Your task to perform on an android device: Open eBay Image 0: 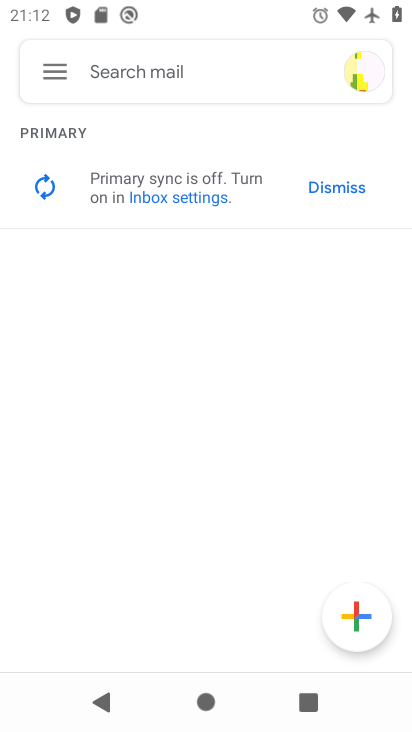
Step 0: press home button
Your task to perform on an android device: Open eBay Image 1: 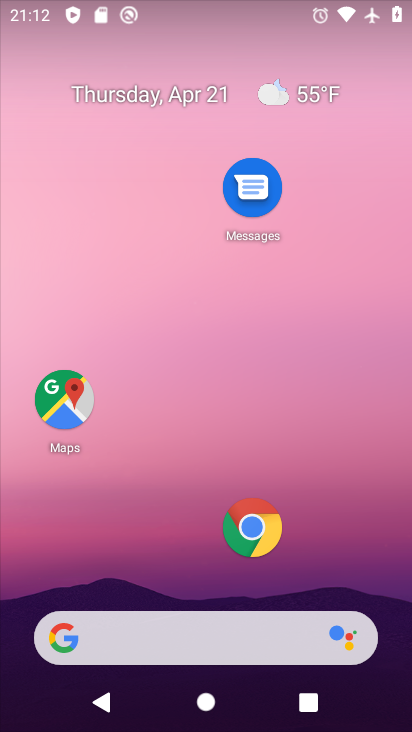
Step 1: drag from (169, 645) to (282, 58)
Your task to perform on an android device: Open eBay Image 2: 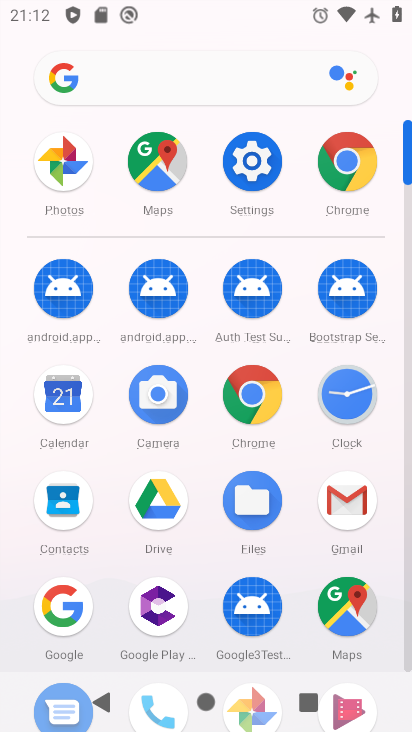
Step 2: click (344, 173)
Your task to perform on an android device: Open eBay Image 3: 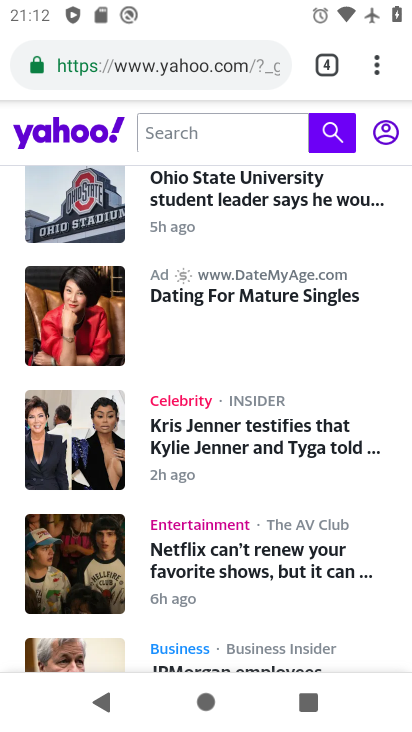
Step 3: drag from (324, 134) to (260, 369)
Your task to perform on an android device: Open eBay Image 4: 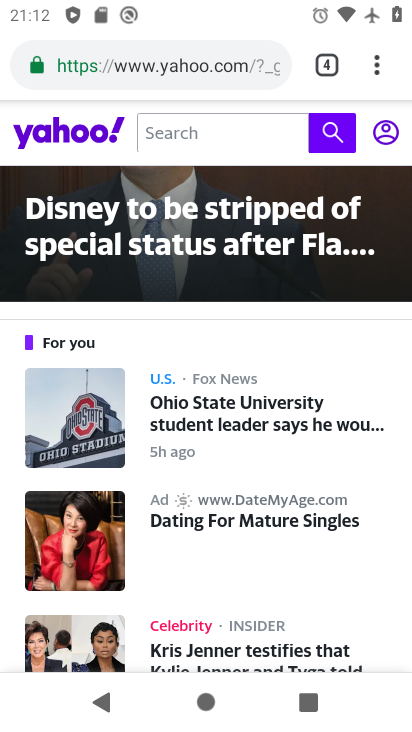
Step 4: click (366, 77)
Your task to perform on an android device: Open eBay Image 5: 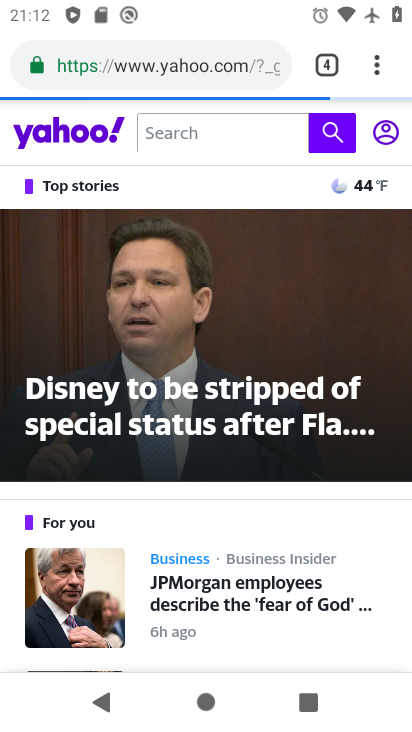
Step 5: click (369, 80)
Your task to perform on an android device: Open eBay Image 6: 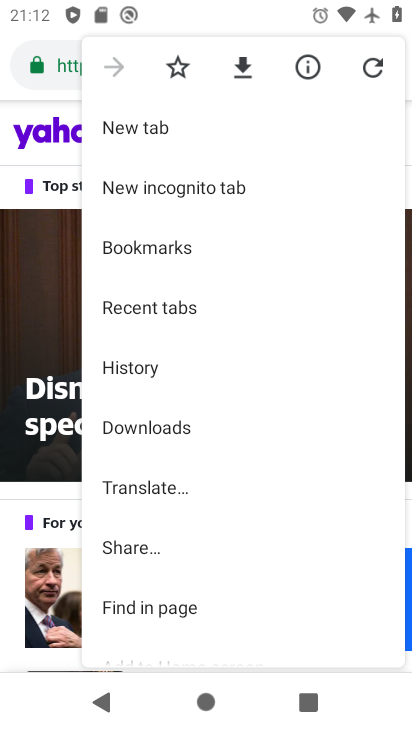
Step 6: click (154, 125)
Your task to perform on an android device: Open eBay Image 7: 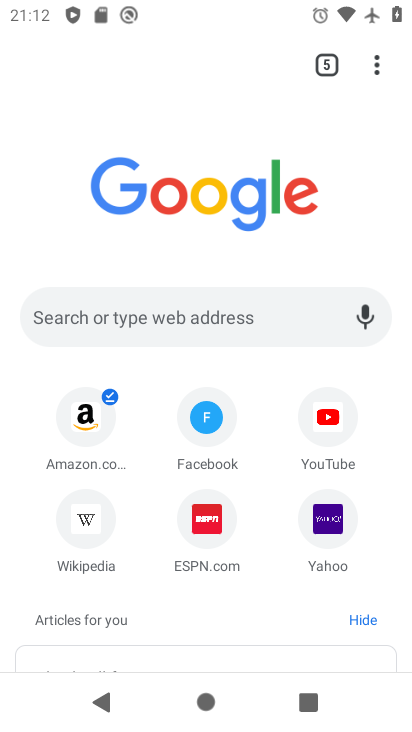
Step 7: click (55, 307)
Your task to perform on an android device: Open eBay Image 8: 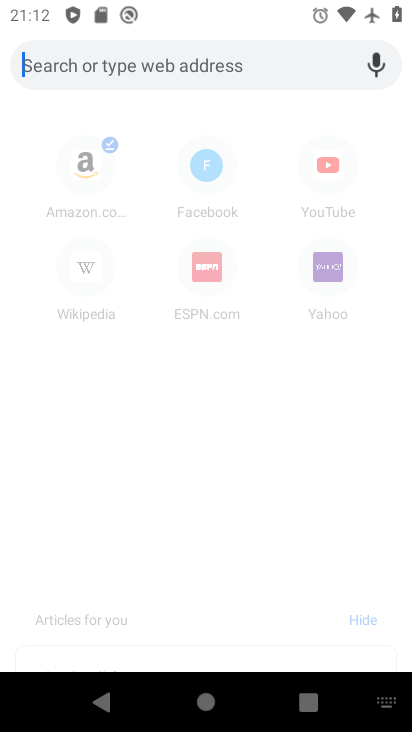
Step 8: type "ebay"
Your task to perform on an android device: Open eBay Image 9: 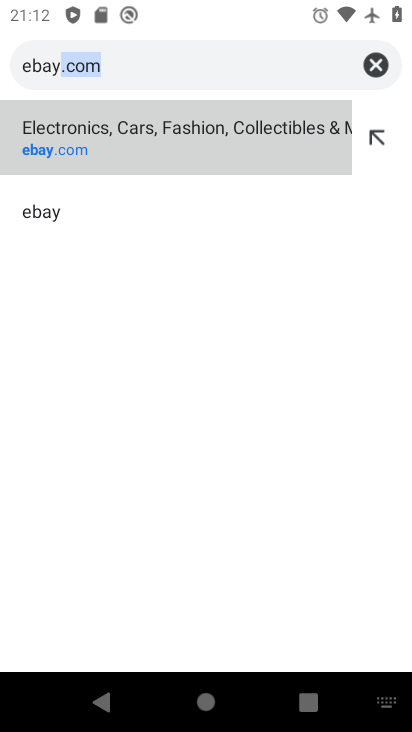
Step 9: click (118, 156)
Your task to perform on an android device: Open eBay Image 10: 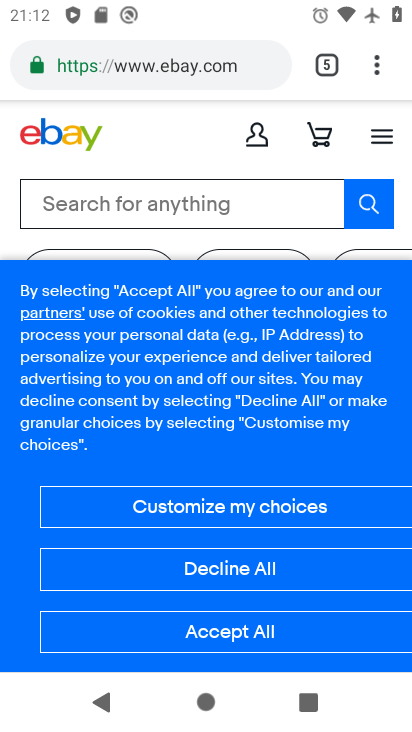
Step 10: task complete